Your task to perform on an android device: Open network settings Image 0: 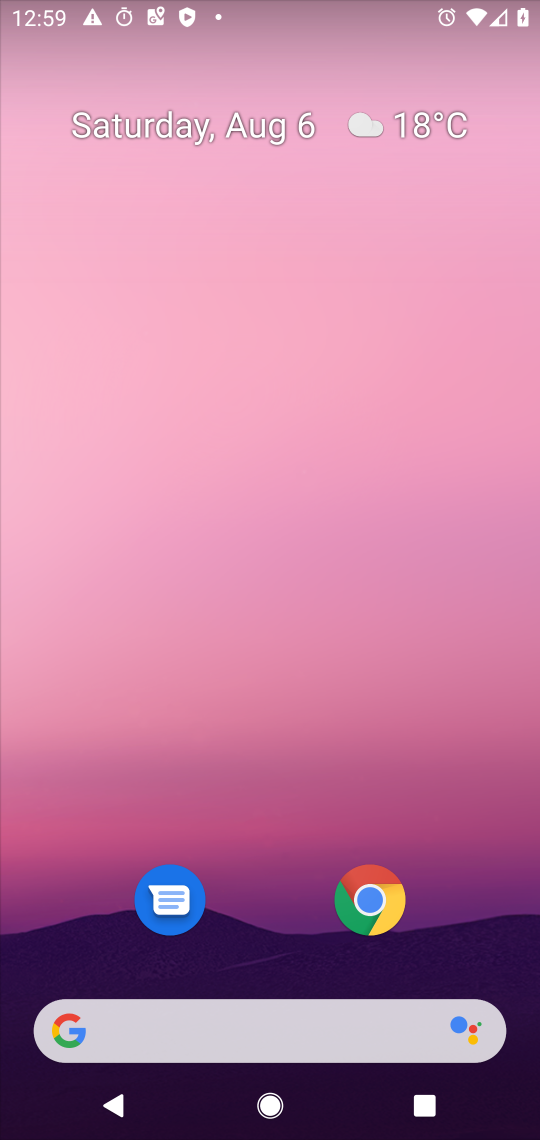
Step 0: drag from (437, 12) to (479, 697)
Your task to perform on an android device: Open network settings Image 1: 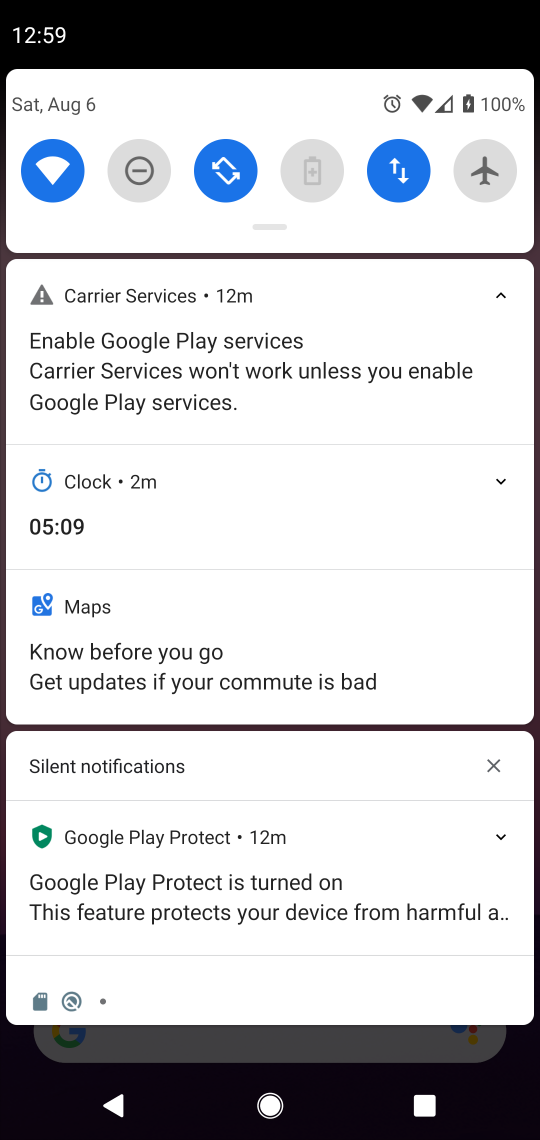
Step 1: drag from (305, 229) to (328, 844)
Your task to perform on an android device: Open network settings Image 2: 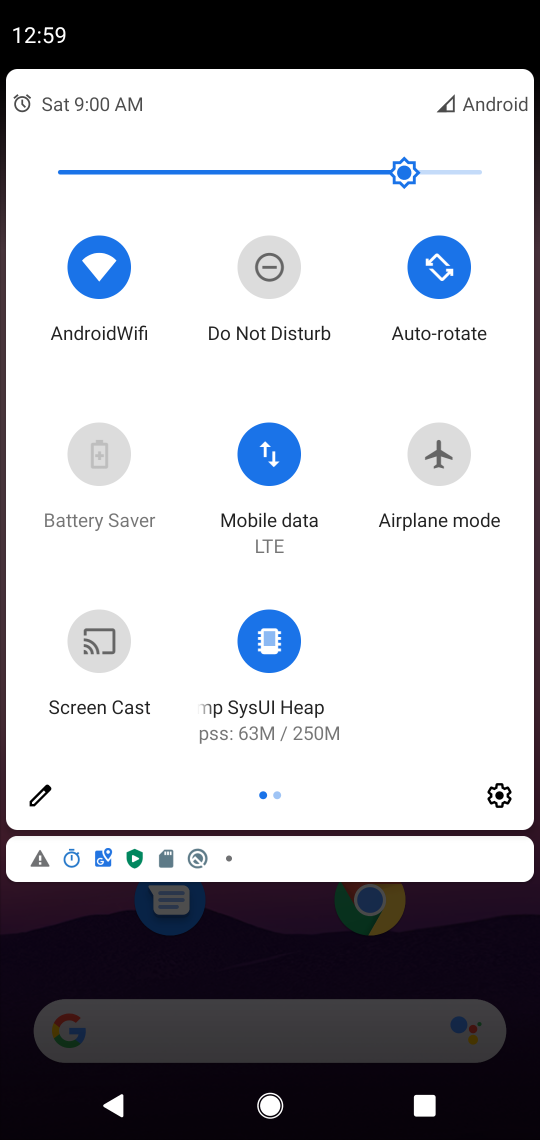
Step 2: click (492, 786)
Your task to perform on an android device: Open network settings Image 3: 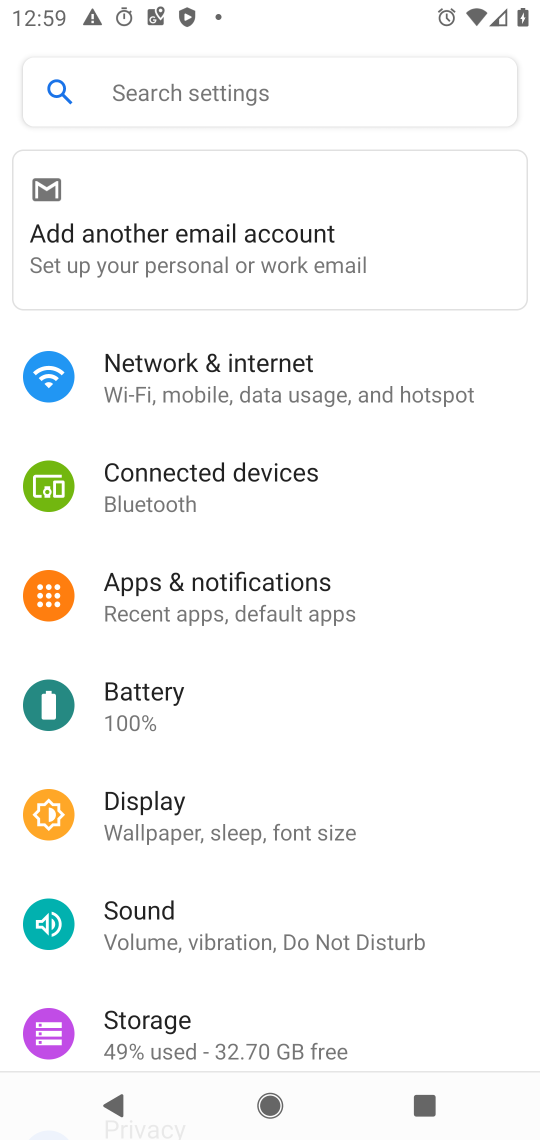
Step 3: click (261, 379)
Your task to perform on an android device: Open network settings Image 4: 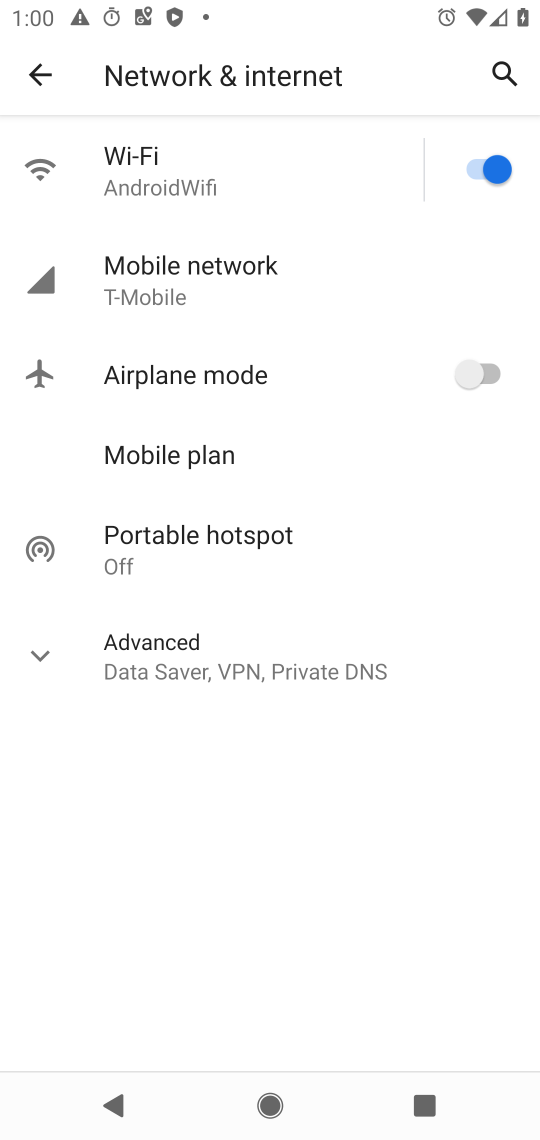
Step 4: task complete